Your task to perform on an android device: Go to eBay Image 0: 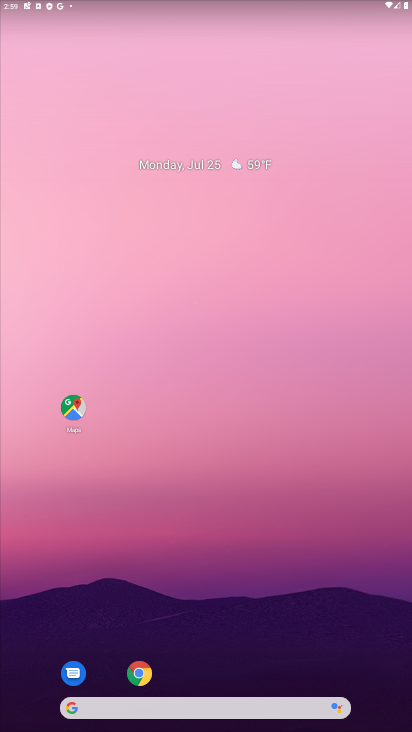
Step 0: click (154, 680)
Your task to perform on an android device: Go to eBay Image 1: 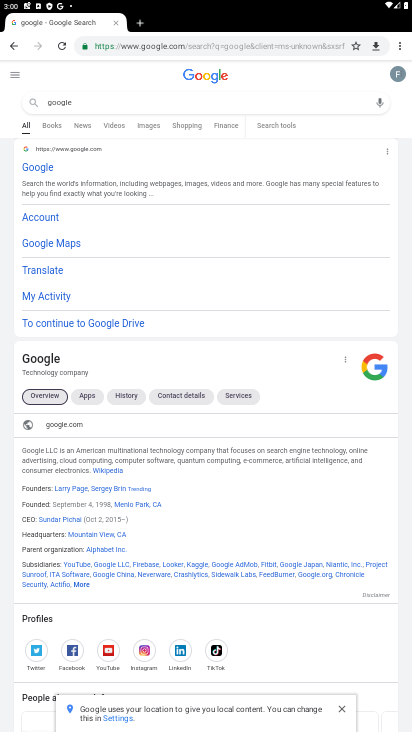
Step 1: click (144, 18)
Your task to perform on an android device: Go to eBay Image 2: 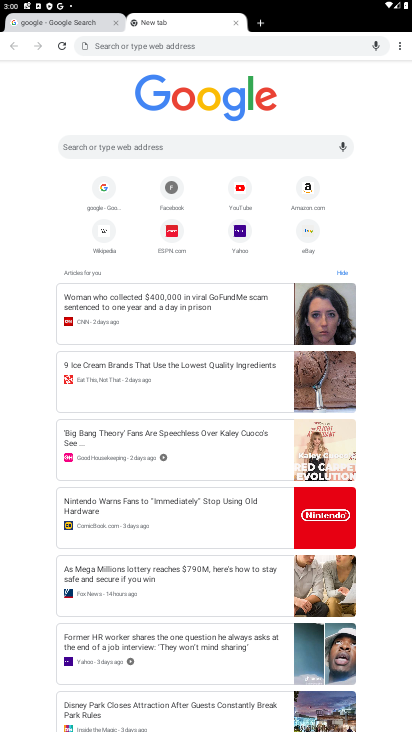
Step 2: click (302, 234)
Your task to perform on an android device: Go to eBay Image 3: 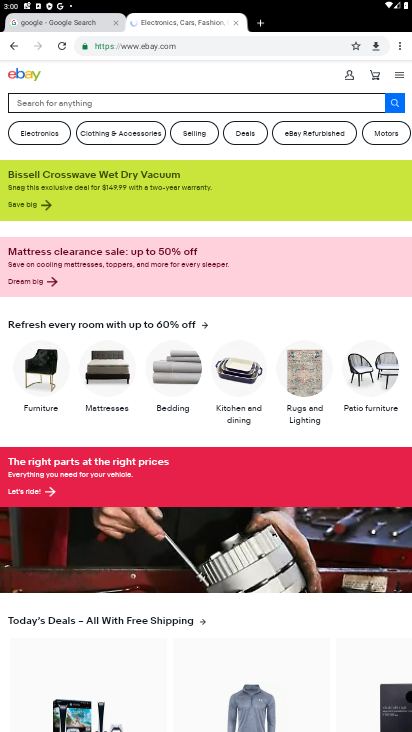
Step 3: task complete